Your task to perform on an android device: toggle data saver in the chrome app Image 0: 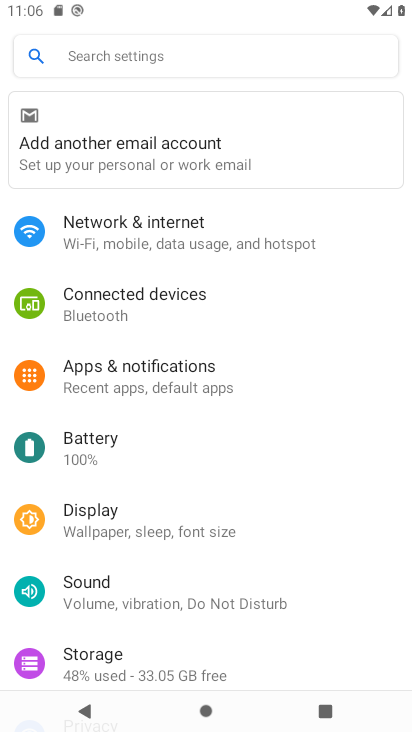
Step 0: press home button
Your task to perform on an android device: toggle data saver in the chrome app Image 1: 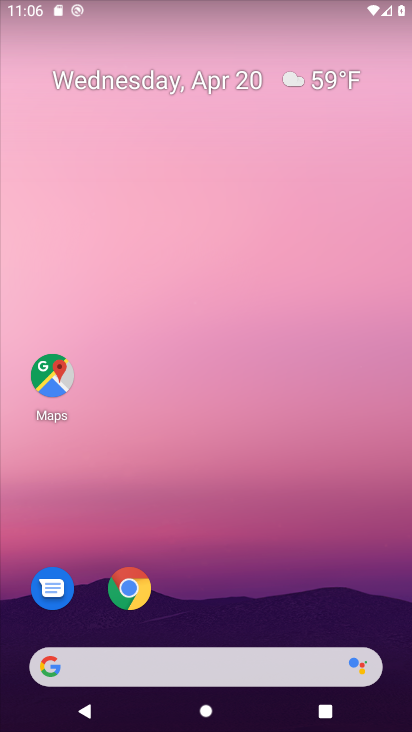
Step 1: click (125, 592)
Your task to perform on an android device: toggle data saver in the chrome app Image 2: 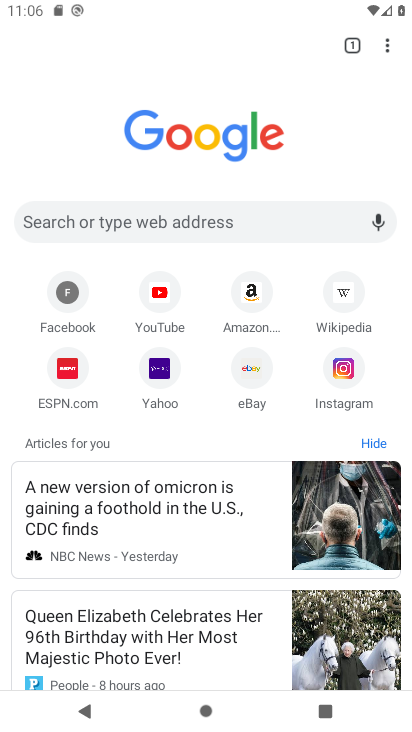
Step 2: click (390, 49)
Your task to perform on an android device: toggle data saver in the chrome app Image 3: 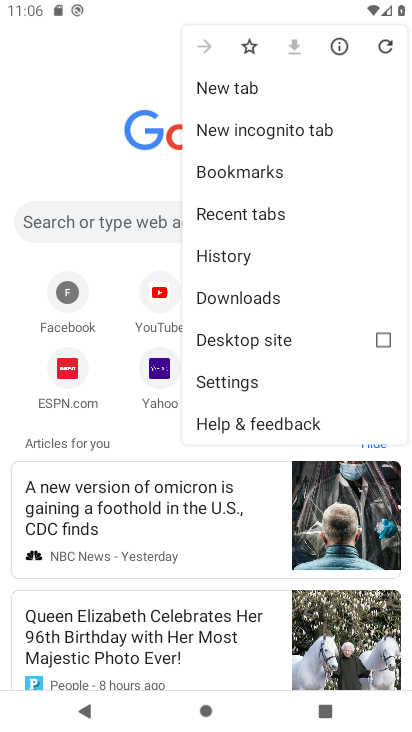
Step 3: click (236, 385)
Your task to perform on an android device: toggle data saver in the chrome app Image 4: 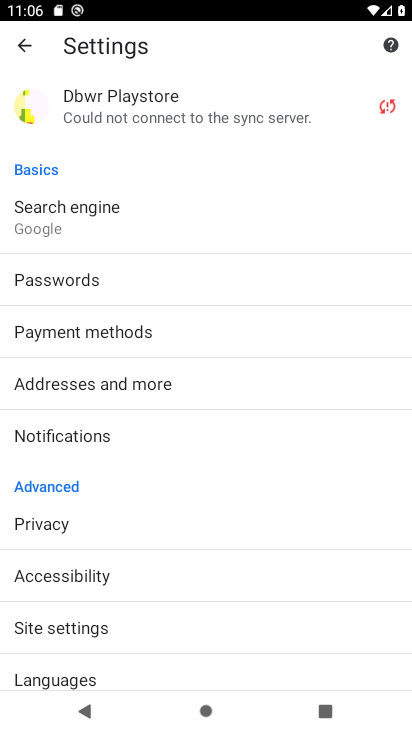
Step 4: drag from (173, 591) to (192, 317)
Your task to perform on an android device: toggle data saver in the chrome app Image 5: 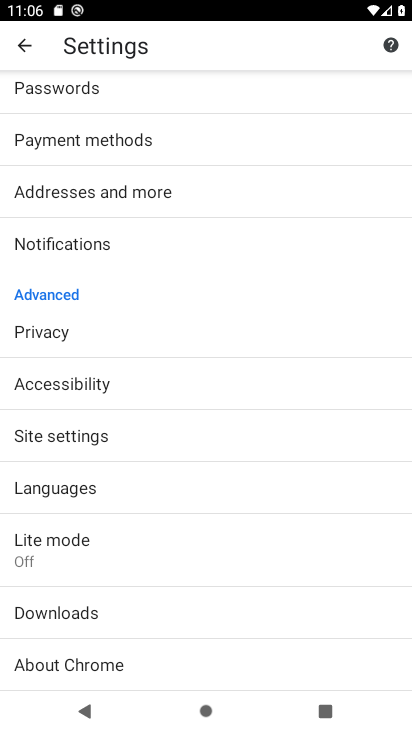
Step 5: click (35, 550)
Your task to perform on an android device: toggle data saver in the chrome app Image 6: 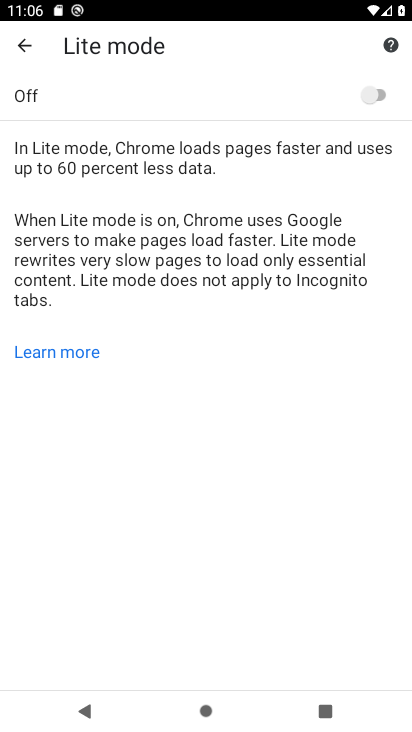
Step 6: click (379, 94)
Your task to perform on an android device: toggle data saver in the chrome app Image 7: 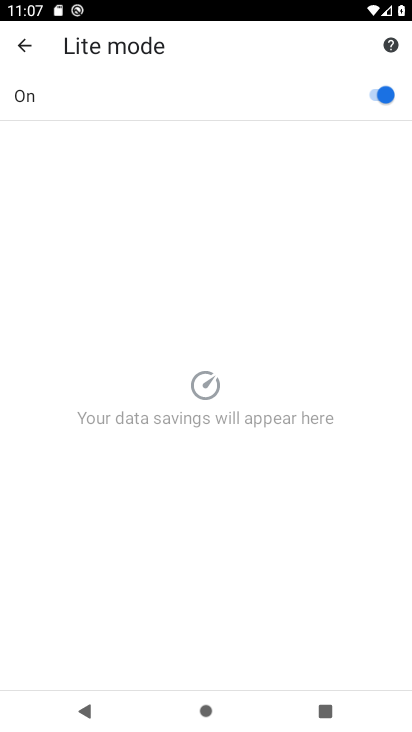
Step 7: task complete